Your task to perform on an android device: turn on sleep mode Image 0: 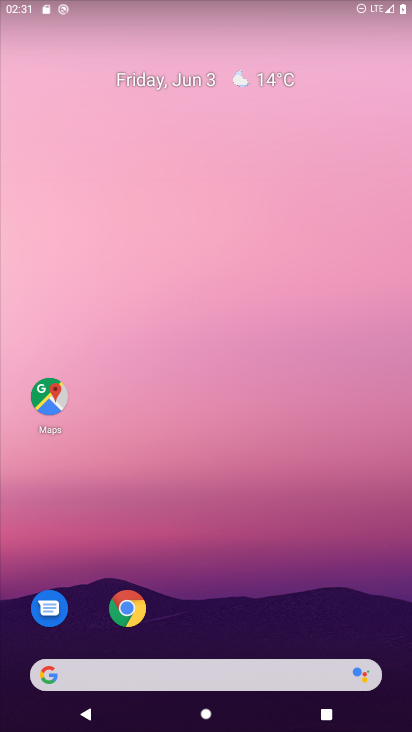
Step 0: drag from (320, 573) to (276, 0)
Your task to perform on an android device: turn on sleep mode Image 1: 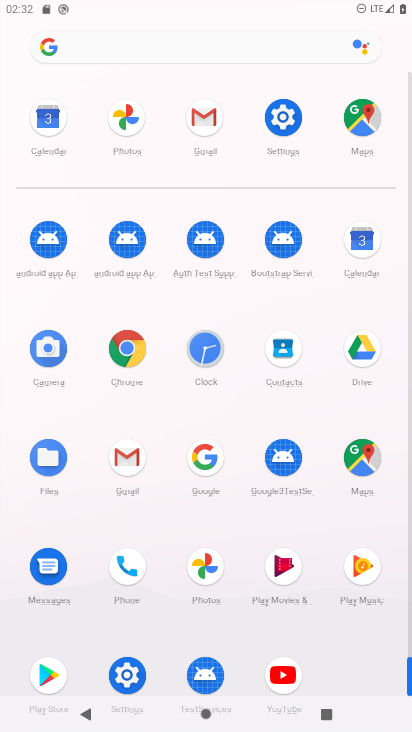
Step 1: click (276, 119)
Your task to perform on an android device: turn on sleep mode Image 2: 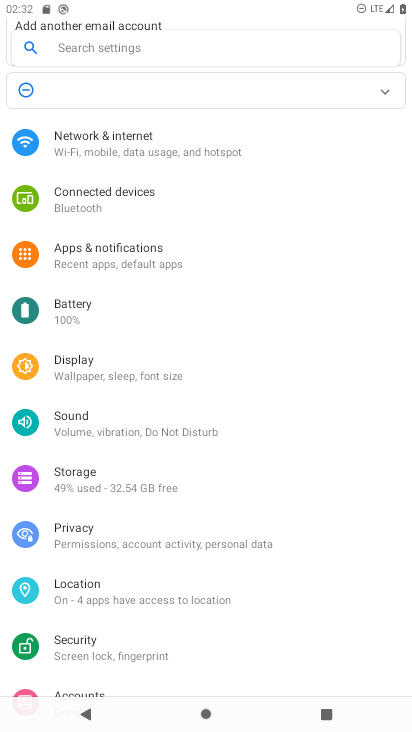
Step 2: click (133, 374)
Your task to perform on an android device: turn on sleep mode Image 3: 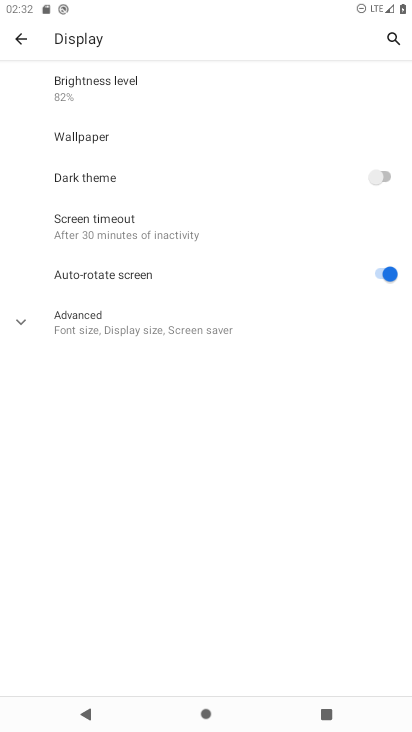
Step 3: click (201, 236)
Your task to perform on an android device: turn on sleep mode Image 4: 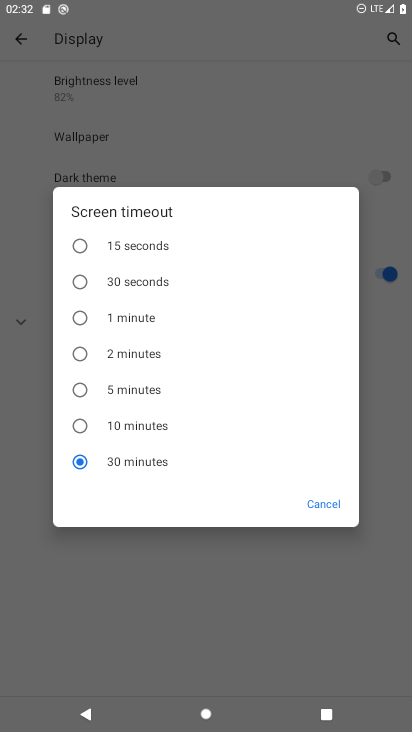
Step 4: task complete